Your task to perform on an android device: Is it going to rain today? Image 0: 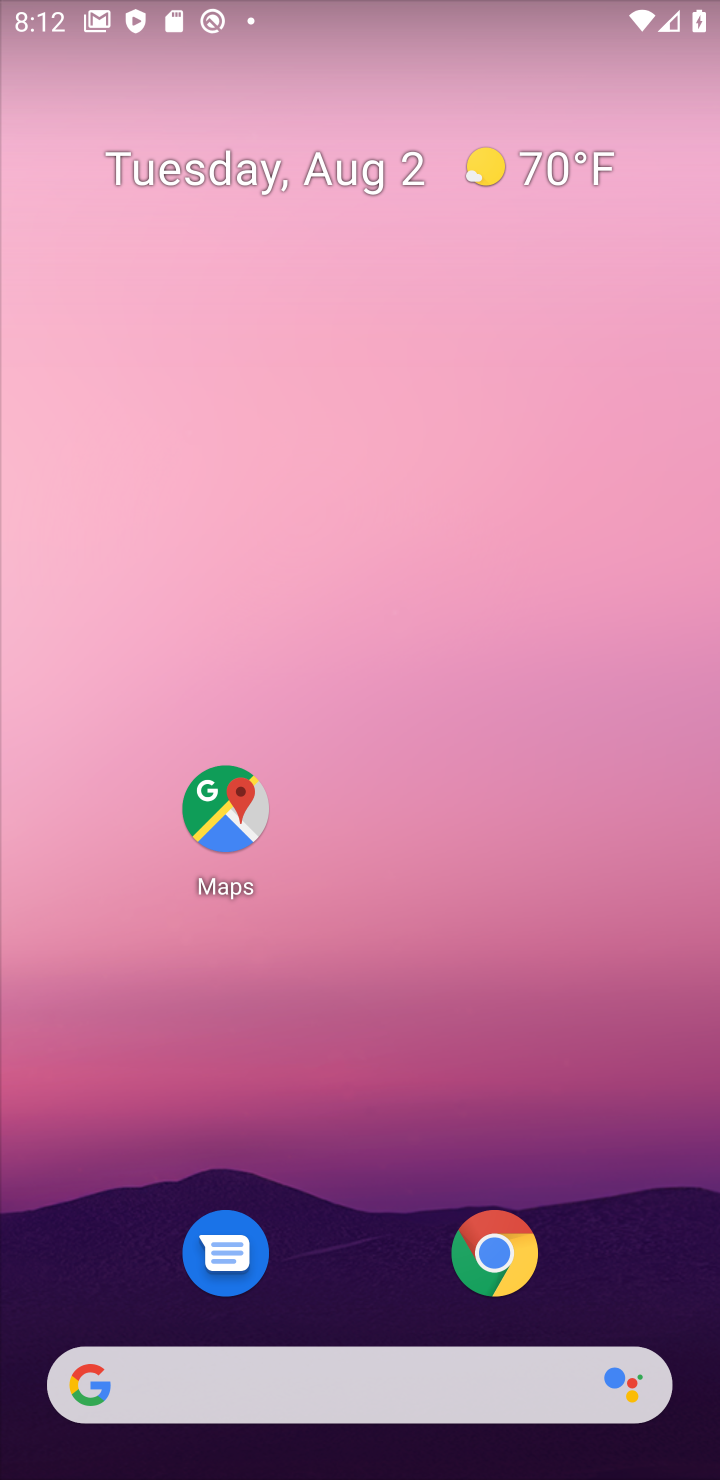
Step 0: click (257, 1385)
Your task to perform on an android device: Is it going to rain today? Image 1: 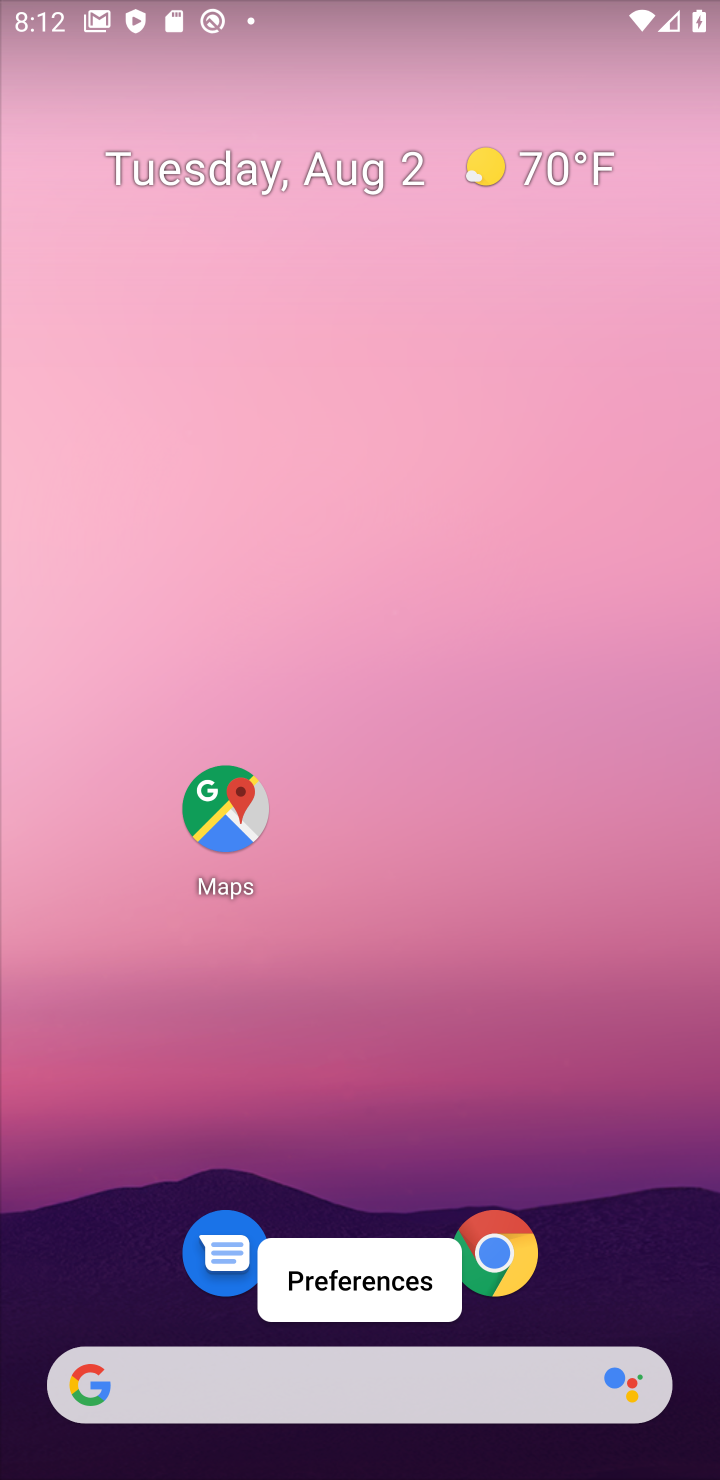
Step 1: click (554, 157)
Your task to perform on an android device: Is it going to rain today? Image 2: 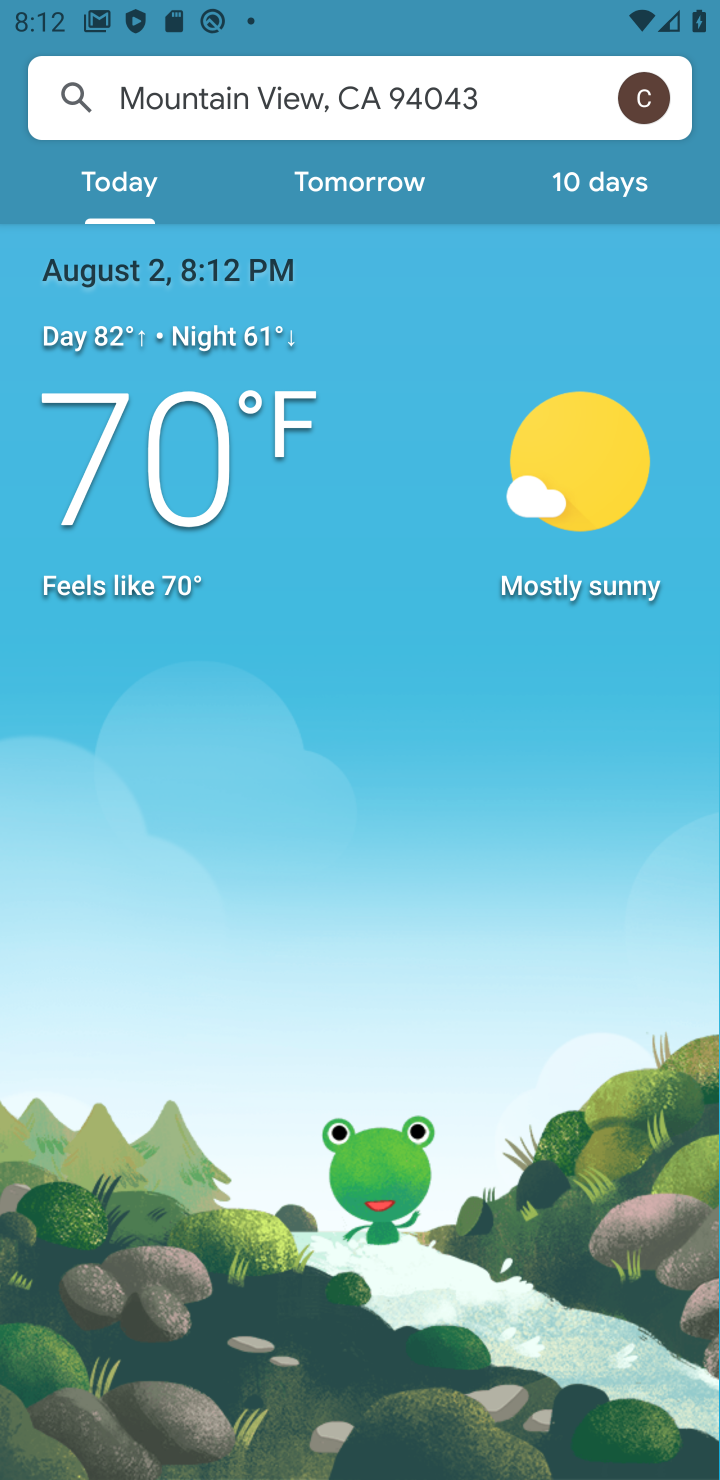
Step 2: task complete